Your task to perform on an android device: turn vacation reply on in the gmail app Image 0: 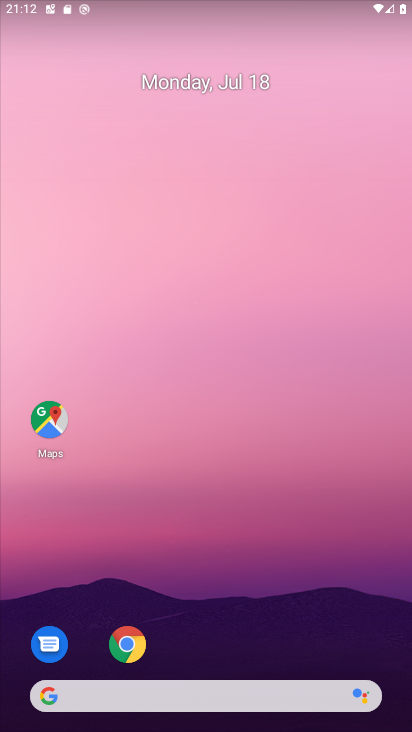
Step 0: drag from (240, 656) to (200, 66)
Your task to perform on an android device: turn vacation reply on in the gmail app Image 1: 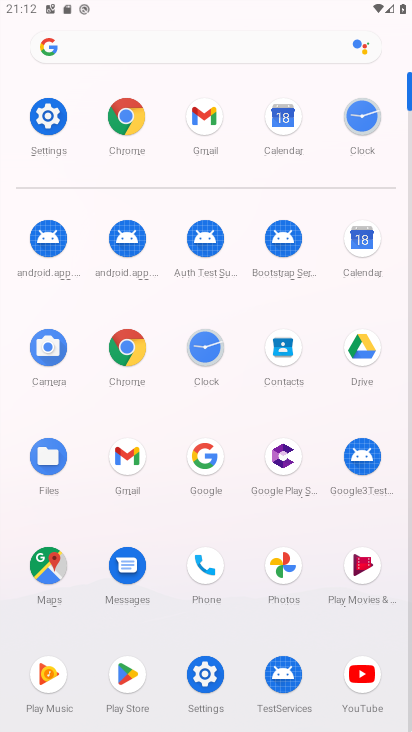
Step 1: click (110, 457)
Your task to perform on an android device: turn vacation reply on in the gmail app Image 2: 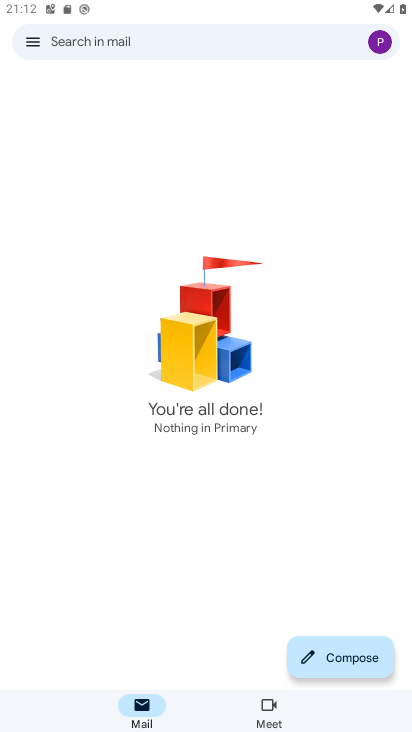
Step 2: task complete